Your task to perform on an android device: find photos in the google photos app Image 0: 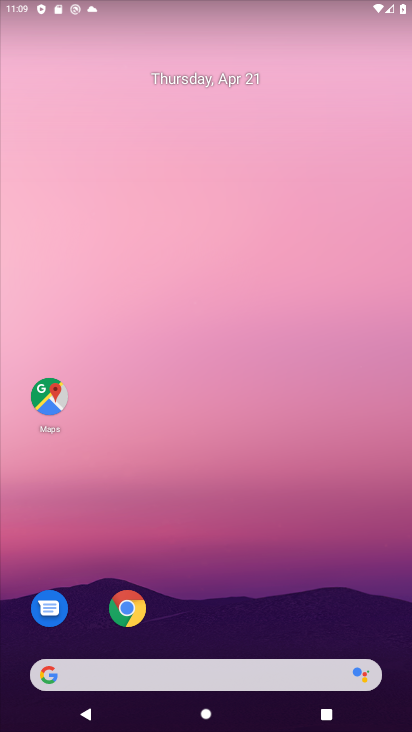
Step 0: press home button
Your task to perform on an android device: find photos in the google photos app Image 1: 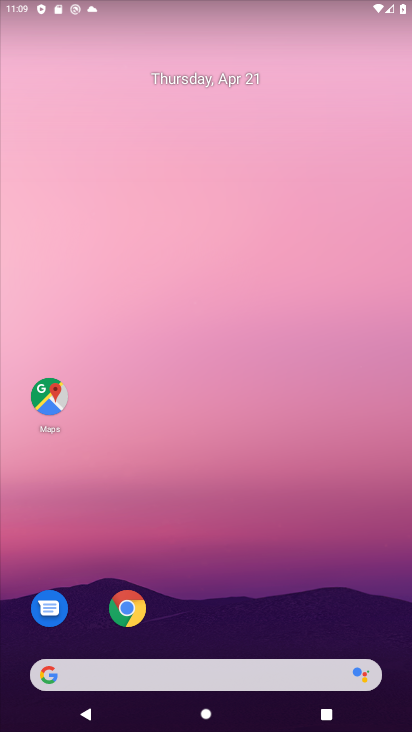
Step 1: drag from (238, 552) to (201, 123)
Your task to perform on an android device: find photos in the google photos app Image 2: 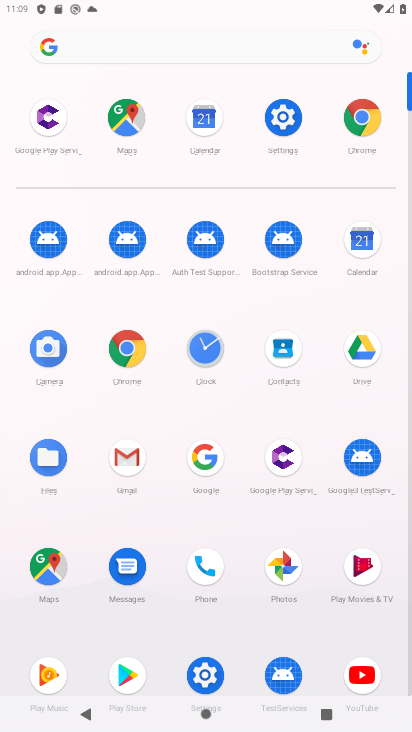
Step 2: click (289, 553)
Your task to perform on an android device: find photos in the google photos app Image 3: 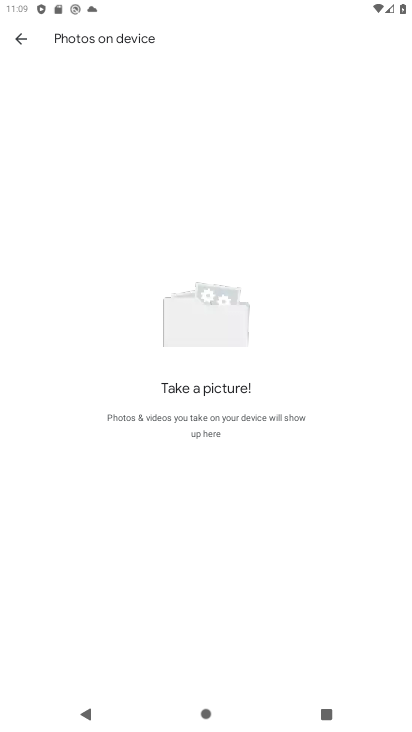
Step 3: click (28, 42)
Your task to perform on an android device: find photos in the google photos app Image 4: 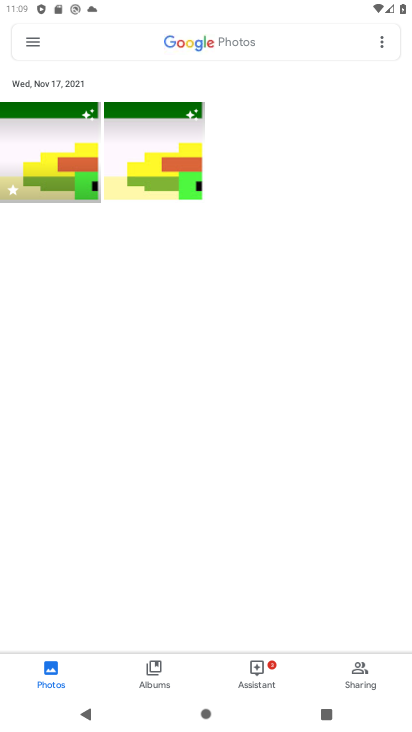
Step 4: task complete